Your task to perform on an android device: Go to display settings Image 0: 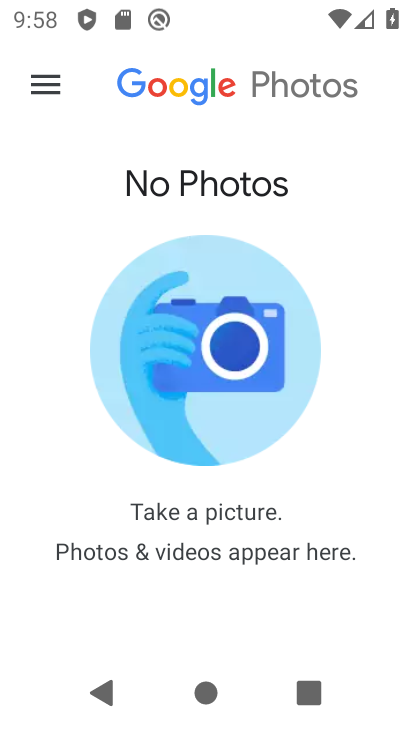
Step 0: click (404, 510)
Your task to perform on an android device: Go to display settings Image 1: 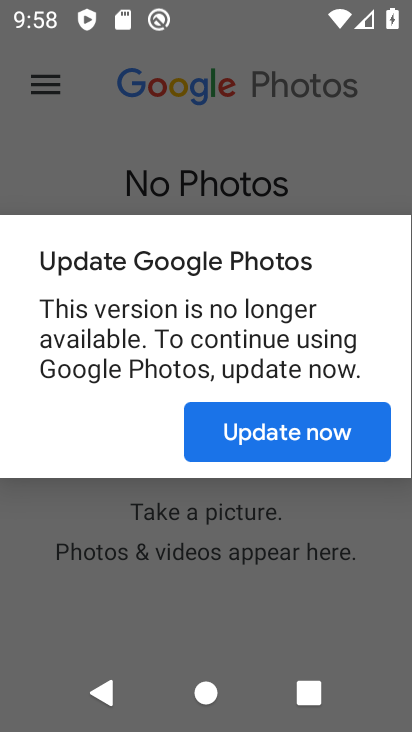
Step 1: press home button
Your task to perform on an android device: Go to display settings Image 2: 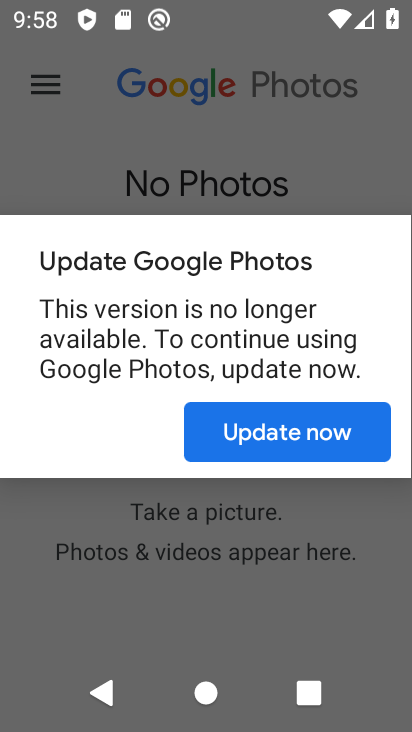
Step 2: drag from (404, 510) to (330, 458)
Your task to perform on an android device: Go to display settings Image 3: 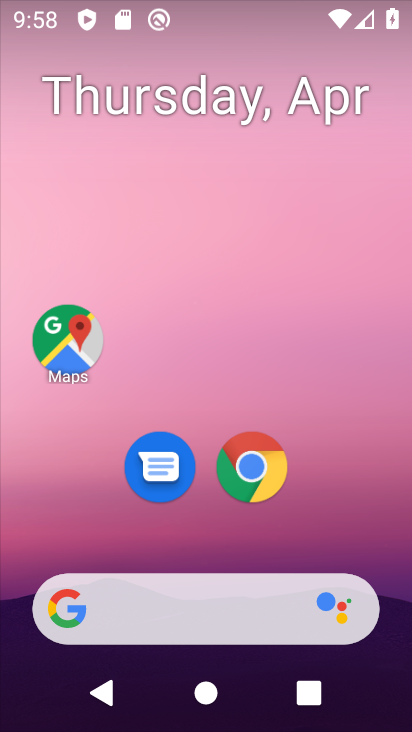
Step 3: drag from (370, 524) to (312, 181)
Your task to perform on an android device: Go to display settings Image 4: 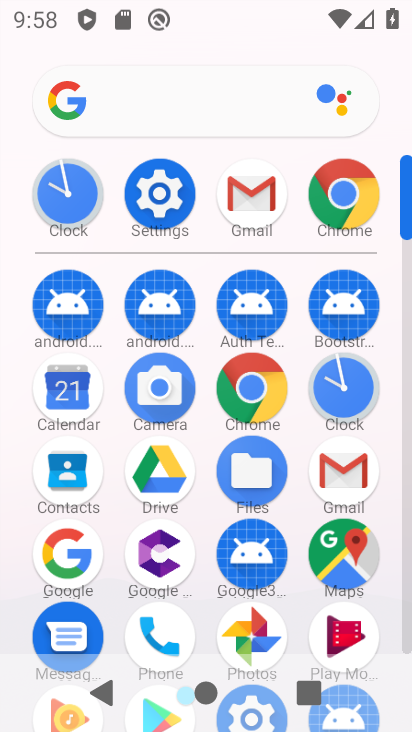
Step 4: click (165, 201)
Your task to perform on an android device: Go to display settings Image 5: 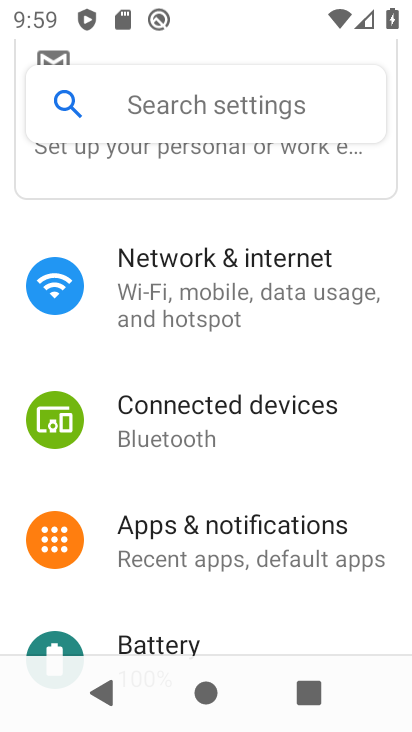
Step 5: drag from (283, 590) to (243, 296)
Your task to perform on an android device: Go to display settings Image 6: 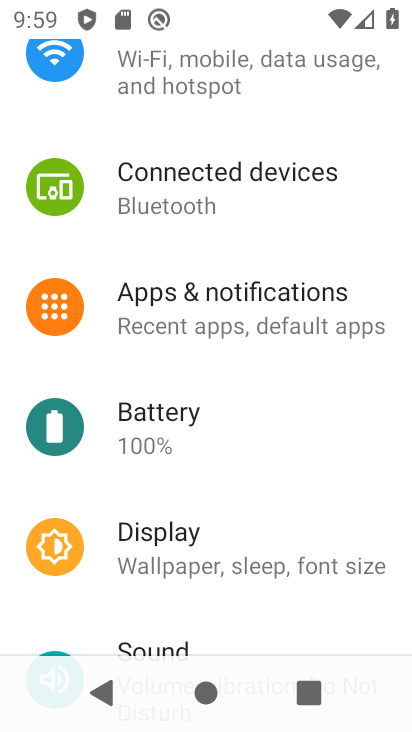
Step 6: click (270, 543)
Your task to perform on an android device: Go to display settings Image 7: 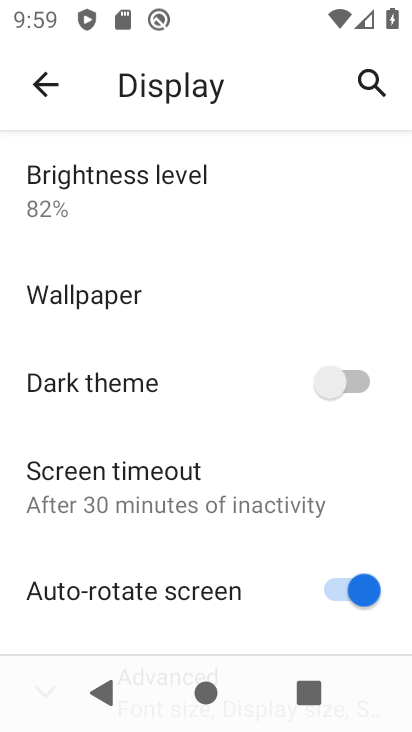
Step 7: task complete